Your task to perform on an android device: turn off picture-in-picture Image 0: 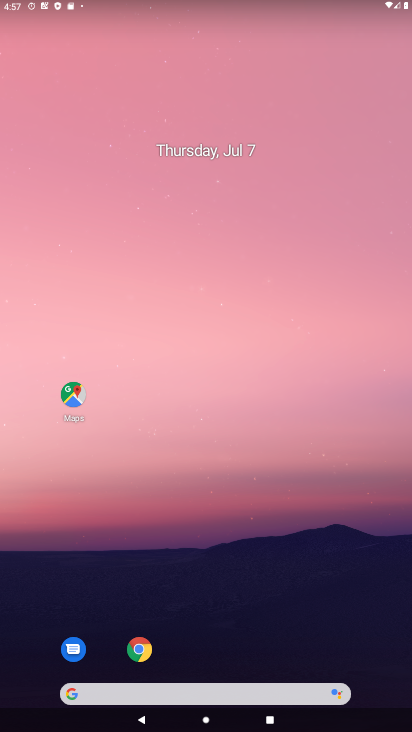
Step 0: drag from (366, 635) to (278, 11)
Your task to perform on an android device: turn off picture-in-picture Image 1: 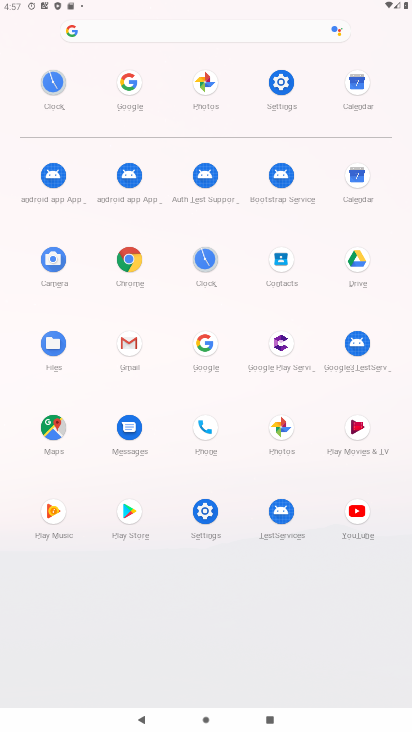
Step 1: click (136, 261)
Your task to perform on an android device: turn off picture-in-picture Image 2: 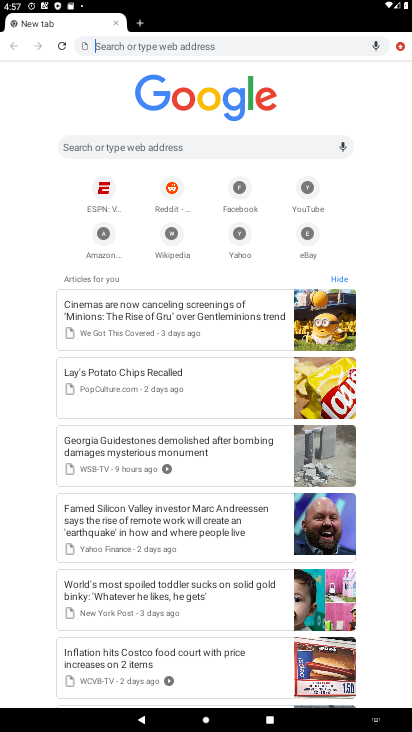
Step 2: task complete